Your task to perform on an android device: Open calendar and show me the second week of next month Image 0: 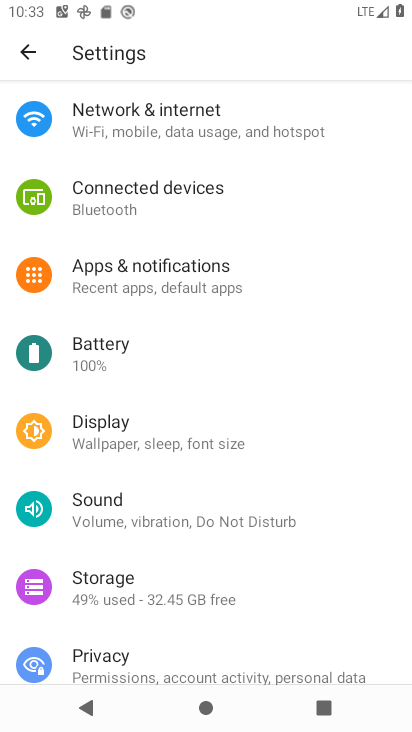
Step 0: press home button
Your task to perform on an android device: Open calendar and show me the second week of next month Image 1: 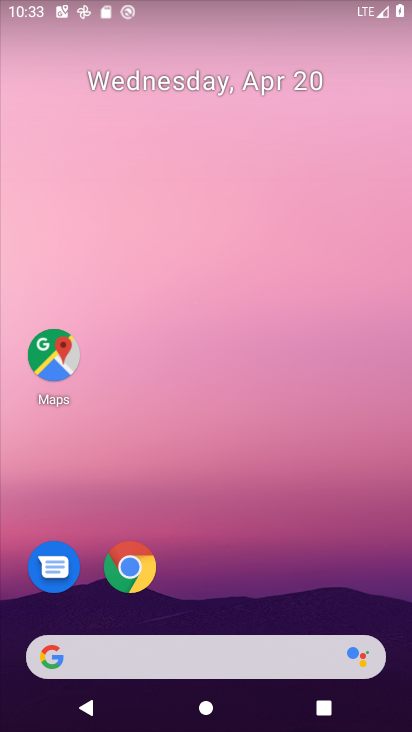
Step 1: drag from (337, 572) to (299, 76)
Your task to perform on an android device: Open calendar and show me the second week of next month Image 2: 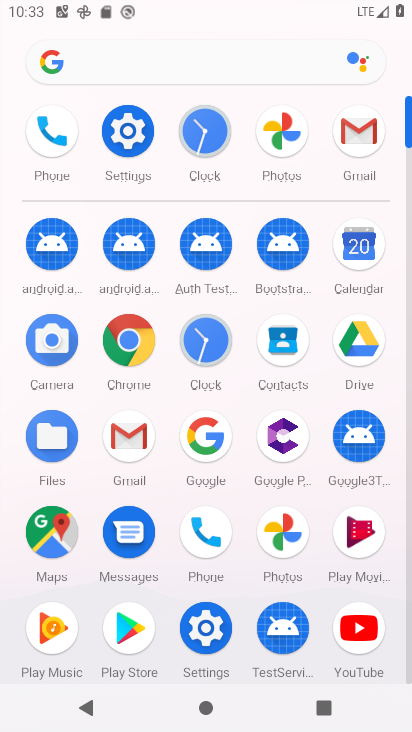
Step 2: click (363, 246)
Your task to perform on an android device: Open calendar and show me the second week of next month Image 3: 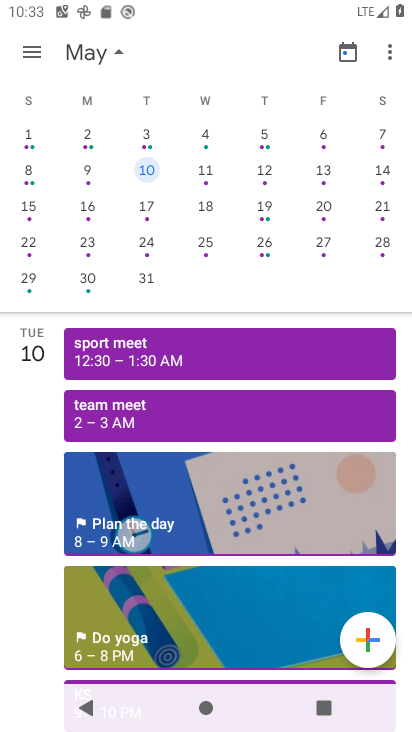
Step 3: task complete